Your task to perform on an android device: install app "YouTube Kids" Image 0: 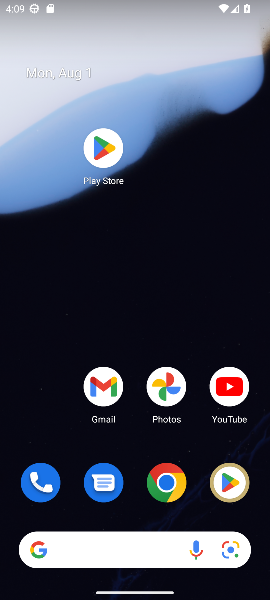
Step 0: click (100, 153)
Your task to perform on an android device: install app "YouTube Kids" Image 1: 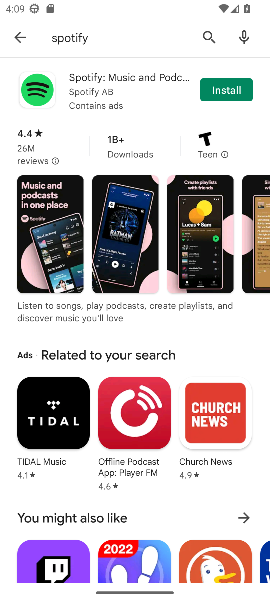
Step 1: click (203, 34)
Your task to perform on an android device: install app "YouTube Kids" Image 2: 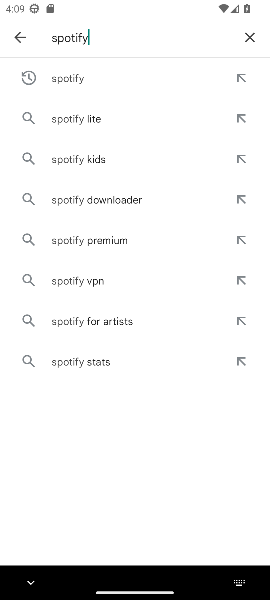
Step 2: click (248, 37)
Your task to perform on an android device: install app "YouTube Kids" Image 3: 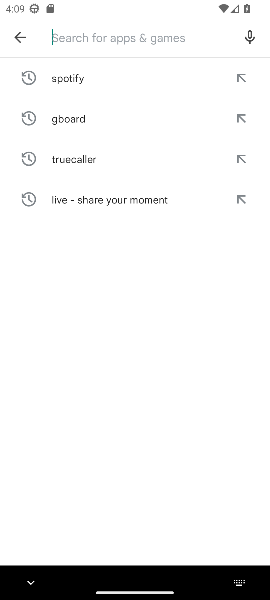
Step 3: type "YouTube Kids"
Your task to perform on an android device: install app "YouTube Kids" Image 4: 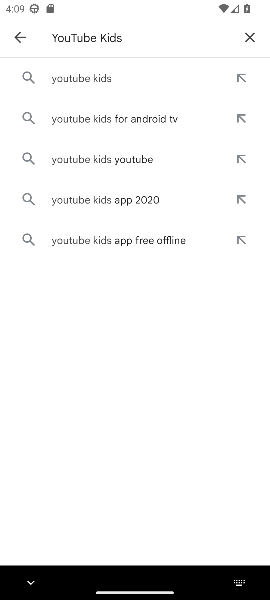
Step 4: click (84, 78)
Your task to perform on an android device: install app "YouTube Kids" Image 5: 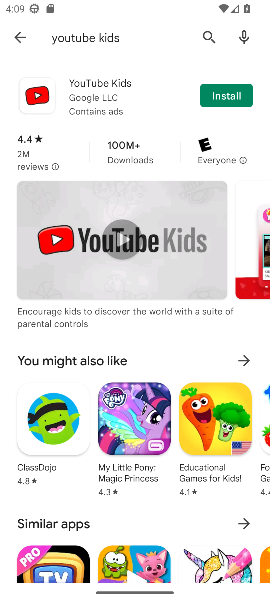
Step 5: click (231, 94)
Your task to perform on an android device: install app "YouTube Kids" Image 6: 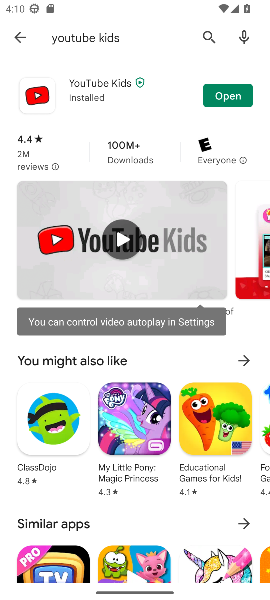
Step 6: task complete